Your task to perform on an android device: toggle location history Image 0: 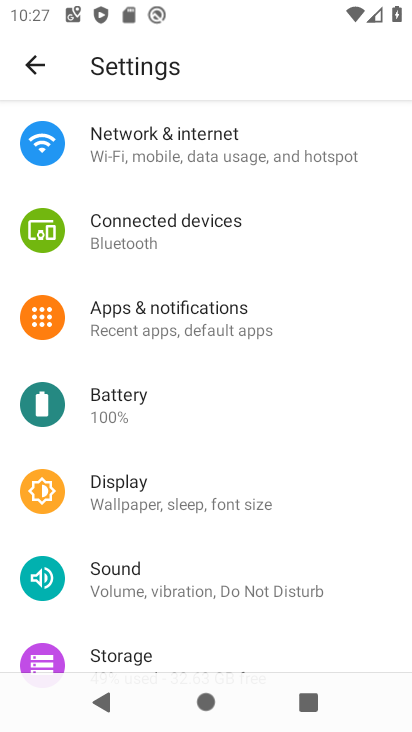
Step 0: drag from (264, 426) to (275, 128)
Your task to perform on an android device: toggle location history Image 1: 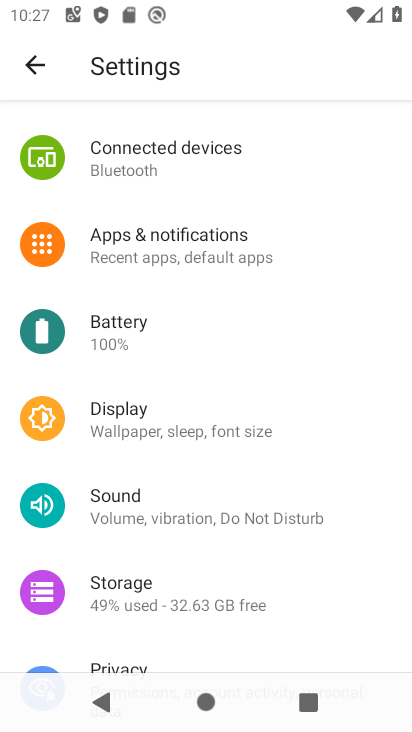
Step 1: drag from (263, 548) to (251, 127)
Your task to perform on an android device: toggle location history Image 2: 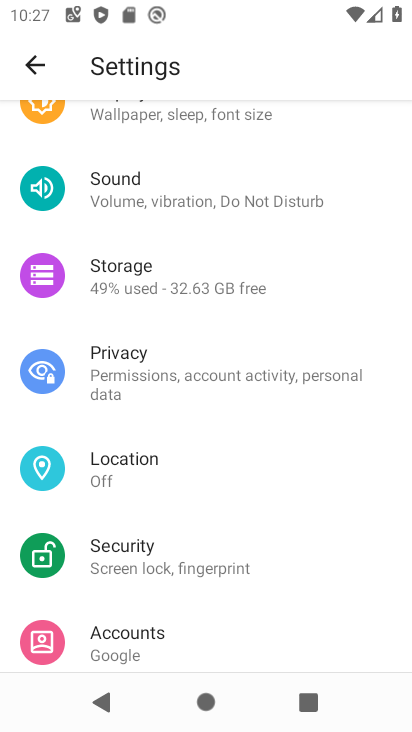
Step 2: click (223, 478)
Your task to perform on an android device: toggle location history Image 3: 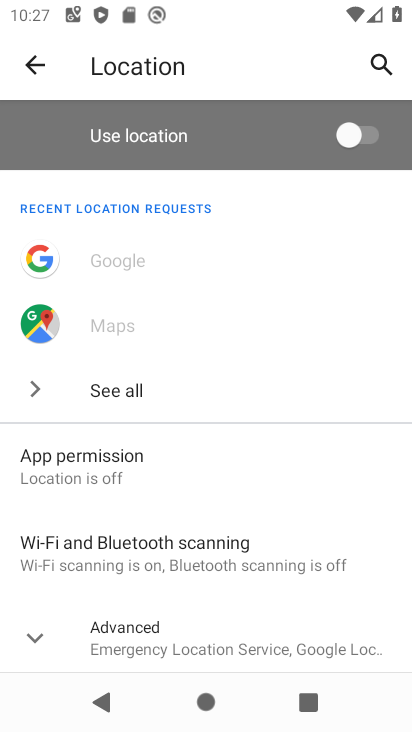
Step 3: drag from (305, 507) to (274, 65)
Your task to perform on an android device: toggle location history Image 4: 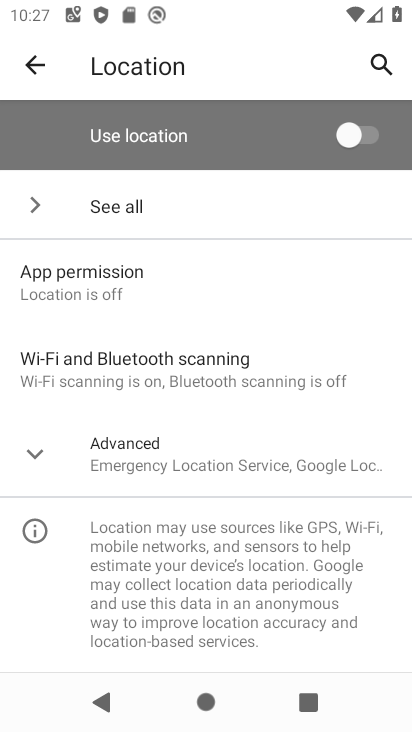
Step 4: click (211, 457)
Your task to perform on an android device: toggle location history Image 5: 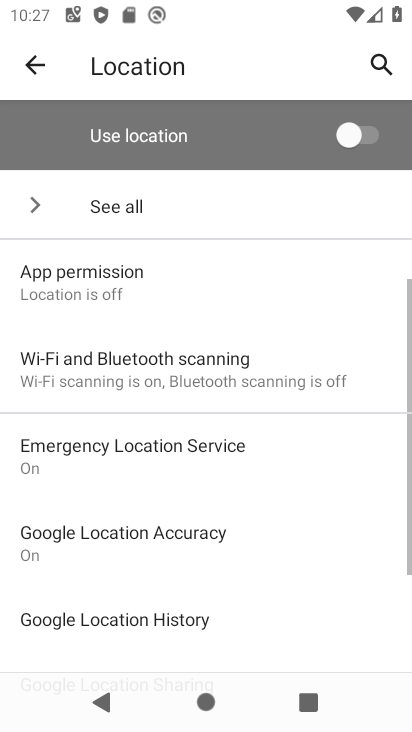
Step 5: drag from (204, 590) to (237, 274)
Your task to perform on an android device: toggle location history Image 6: 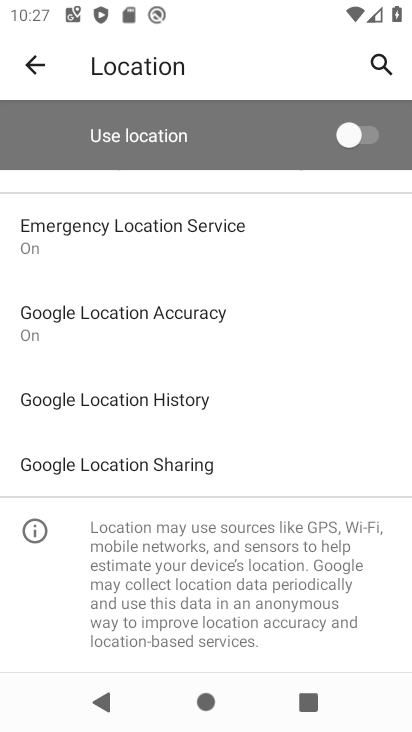
Step 6: click (186, 394)
Your task to perform on an android device: toggle location history Image 7: 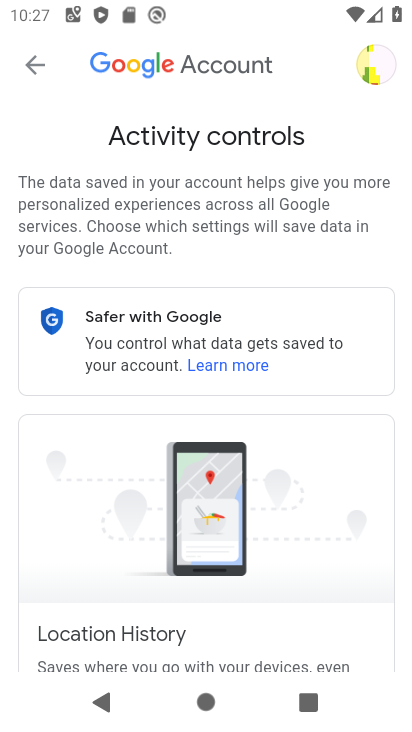
Step 7: drag from (315, 534) to (302, 42)
Your task to perform on an android device: toggle location history Image 8: 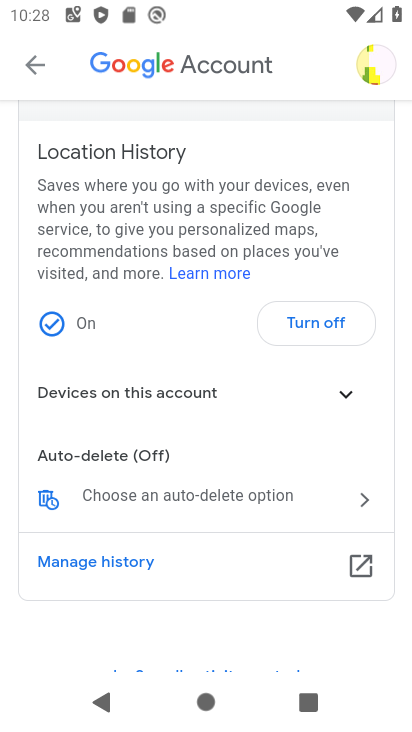
Step 8: click (310, 314)
Your task to perform on an android device: toggle location history Image 9: 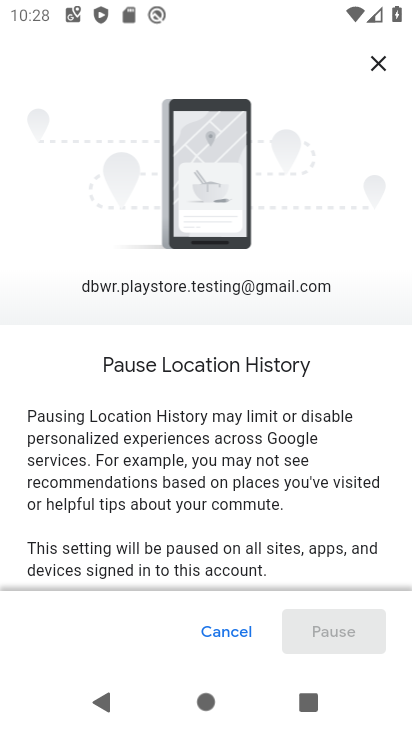
Step 9: drag from (265, 517) to (273, 21)
Your task to perform on an android device: toggle location history Image 10: 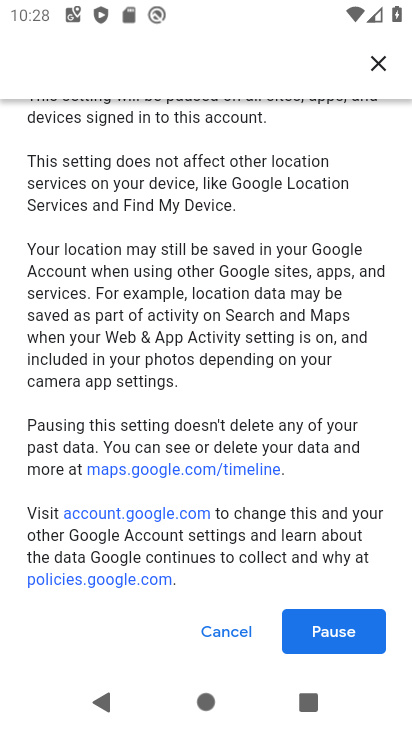
Step 10: click (329, 626)
Your task to perform on an android device: toggle location history Image 11: 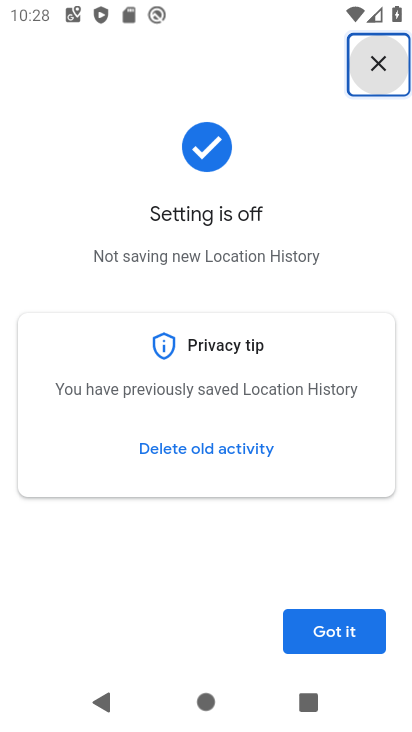
Step 11: click (354, 634)
Your task to perform on an android device: toggle location history Image 12: 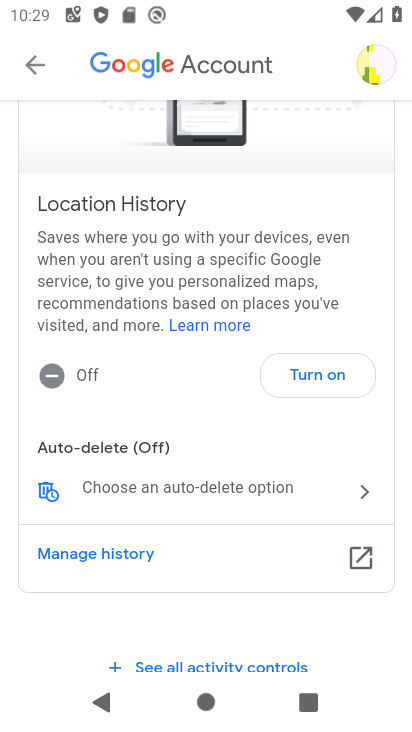
Step 12: task complete